Your task to perform on an android device: Show the shopping cart on newegg.com. Add macbook to the cart on newegg.com, then select checkout. Image 0: 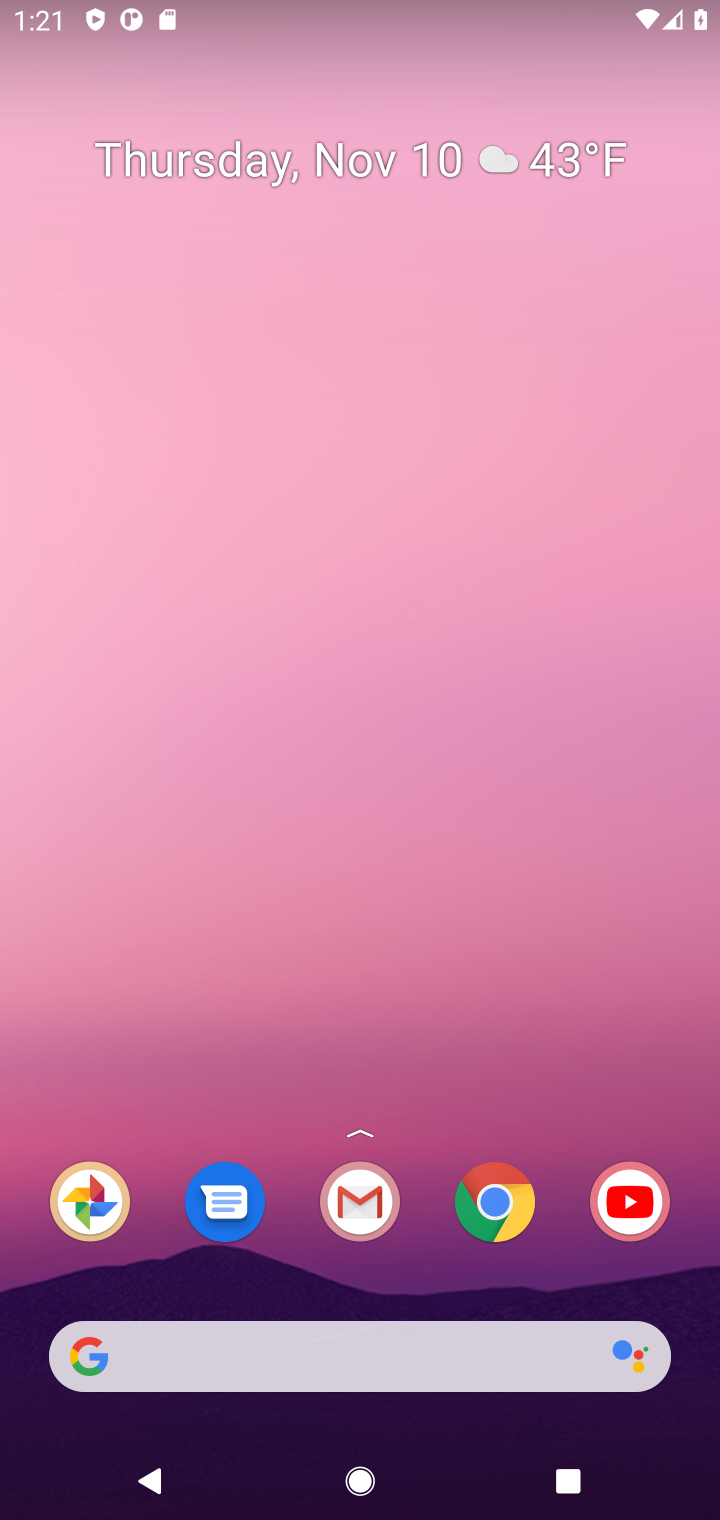
Step 0: click (488, 1188)
Your task to perform on an android device: Show the shopping cart on newegg.com. Add macbook to the cart on newegg.com, then select checkout. Image 1: 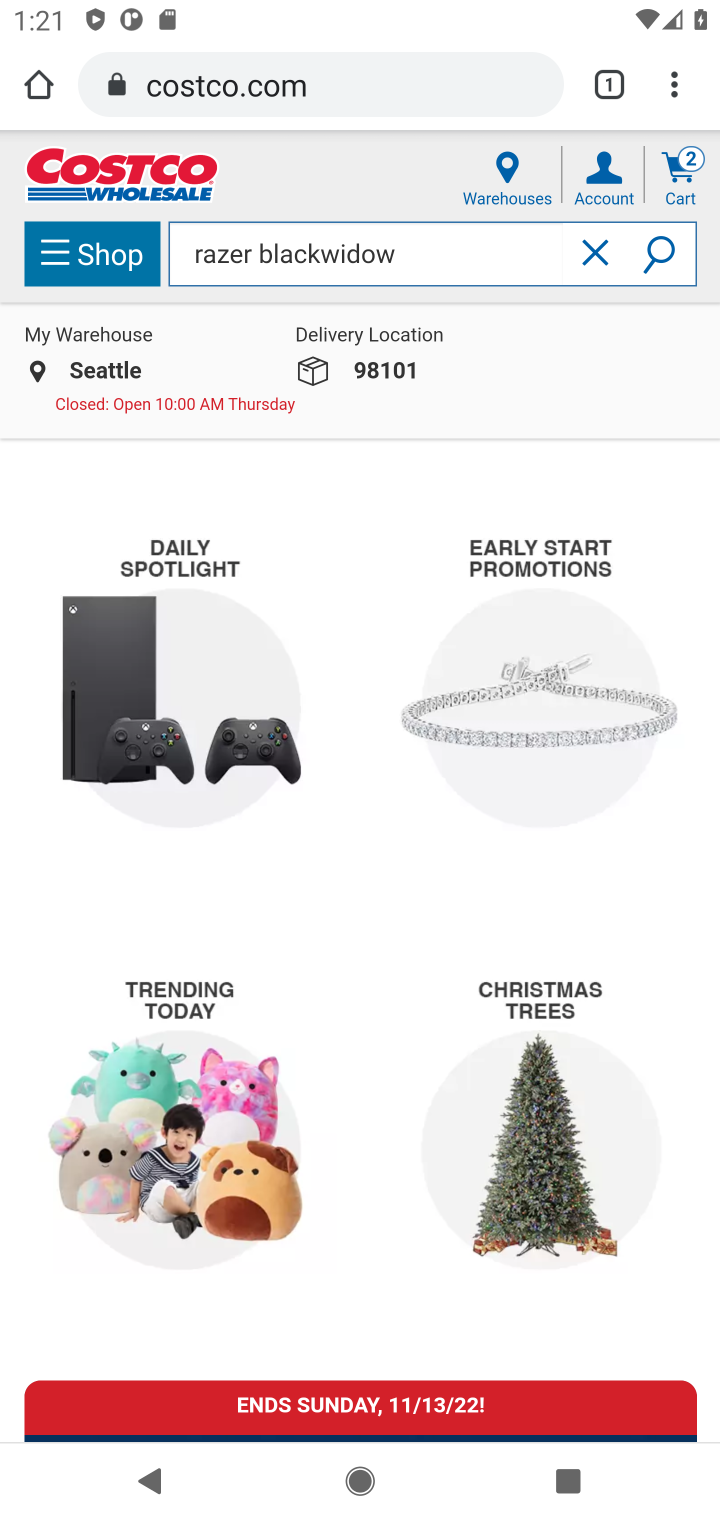
Step 1: click (420, 87)
Your task to perform on an android device: Show the shopping cart on newegg.com. Add macbook to the cart on newegg.com, then select checkout. Image 2: 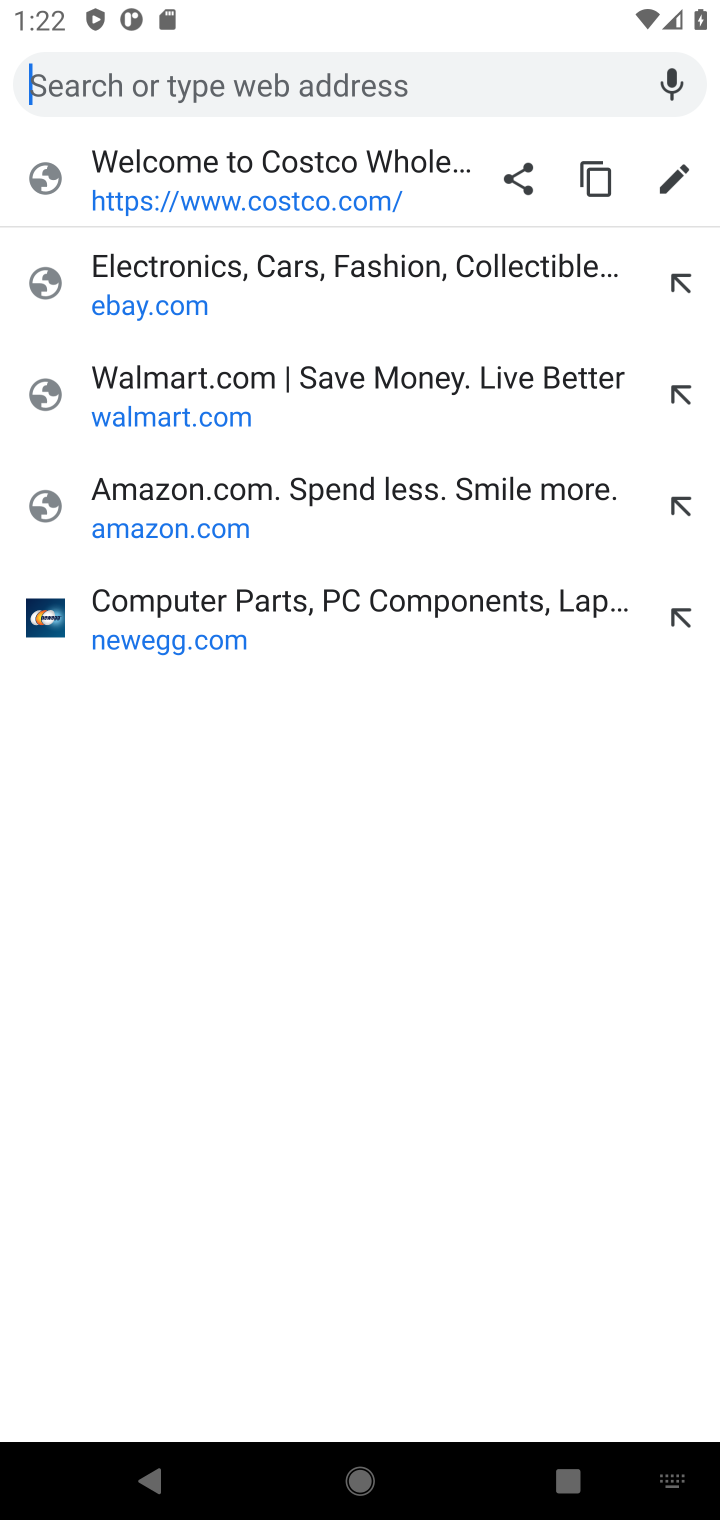
Step 2: type "newegg.com"
Your task to perform on an android device: Show the shopping cart on newegg.com. Add macbook to the cart on newegg.com, then select checkout. Image 3: 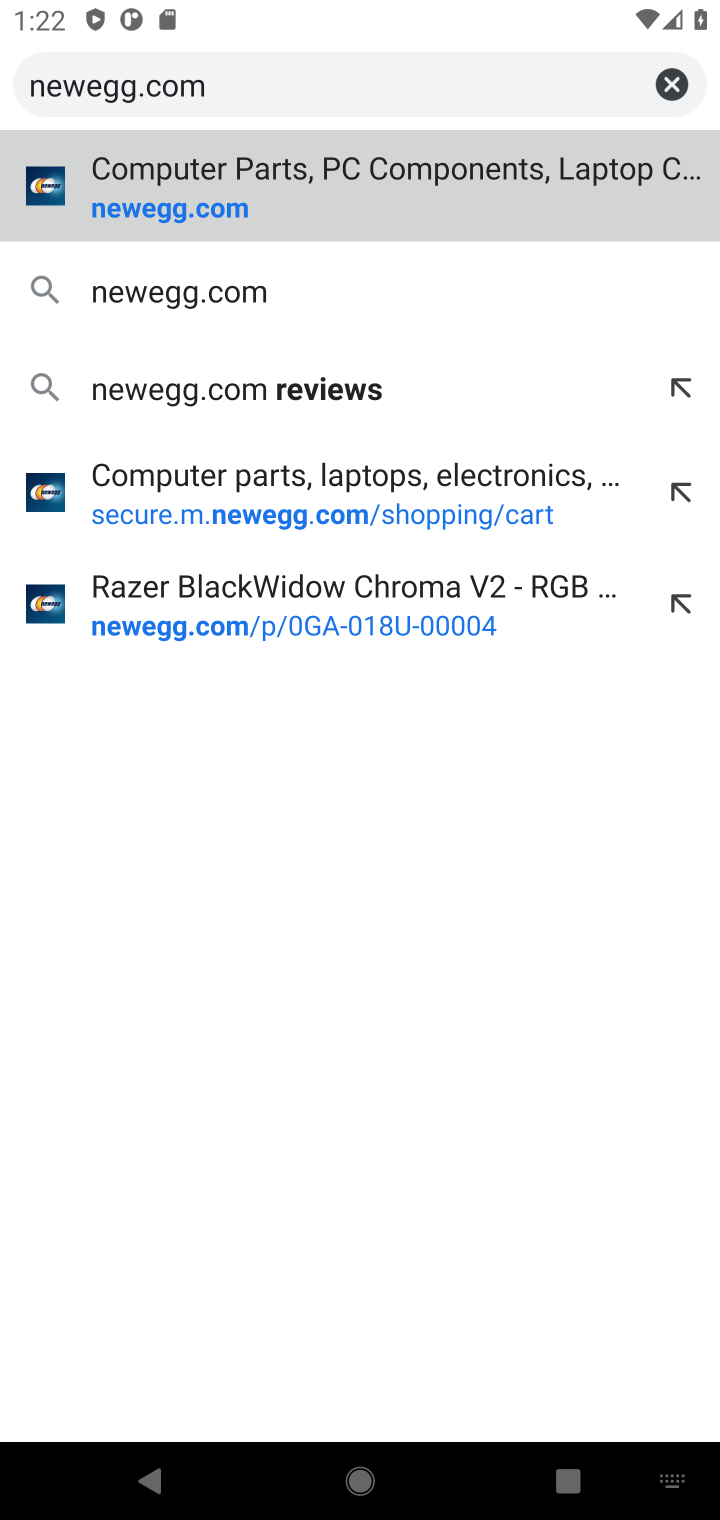
Step 3: click (238, 271)
Your task to perform on an android device: Show the shopping cart on newegg.com. Add macbook to the cart on newegg.com, then select checkout. Image 4: 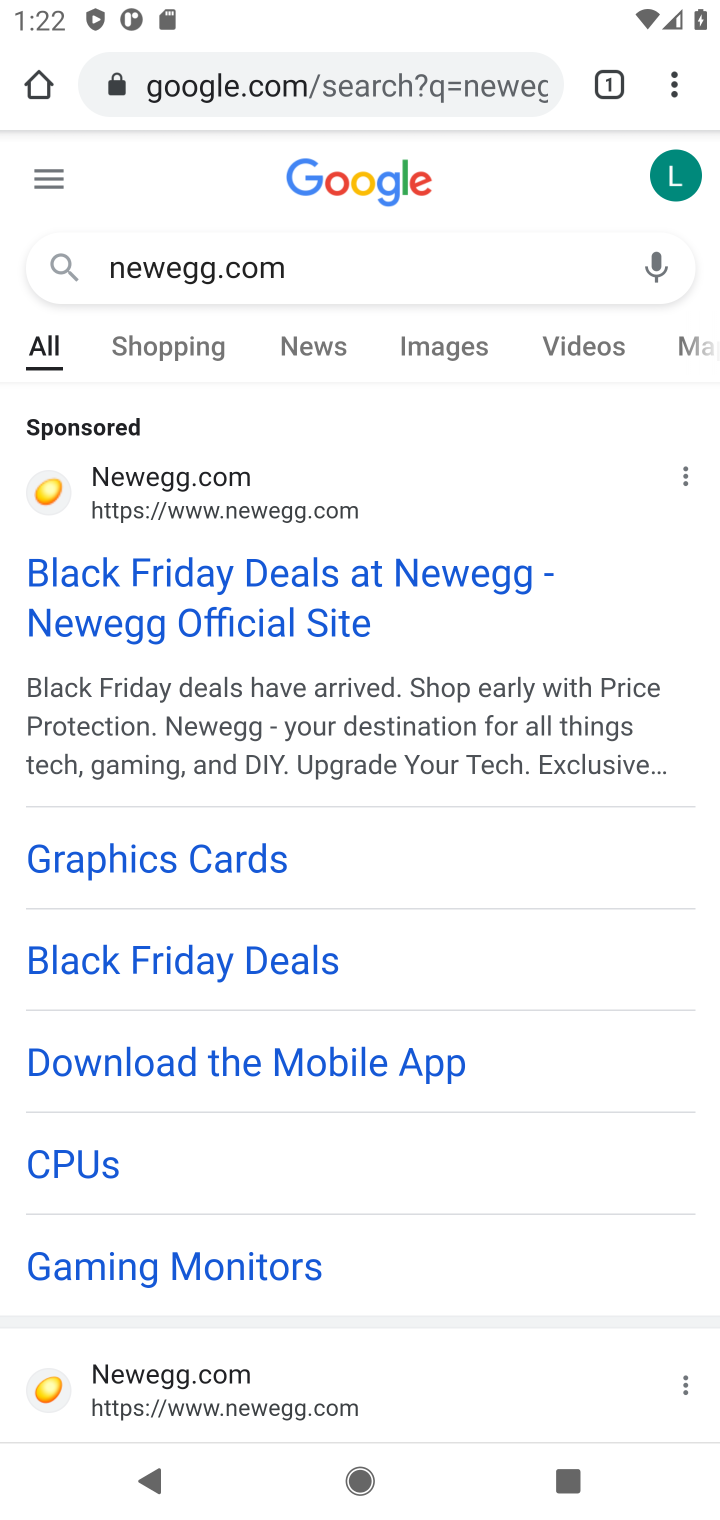
Step 4: click (299, 498)
Your task to perform on an android device: Show the shopping cart on newegg.com. Add macbook to the cart on newegg.com, then select checkout. Image 5: 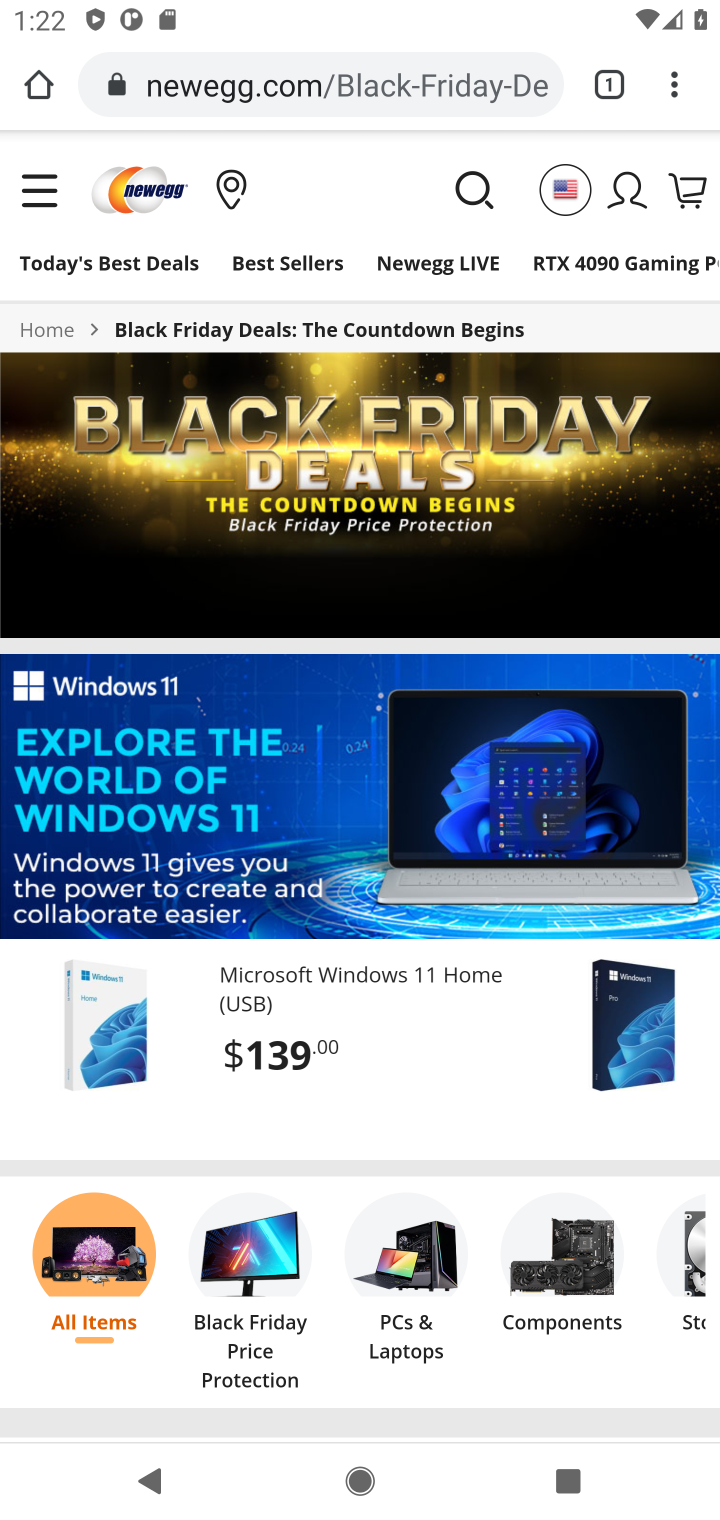
Step 5: click (470, 176)
Your task to perform on an android device: Show the shopping cart on newegg.com. Add macbook to the cart on newegg.com, then select checkout. Image 6: 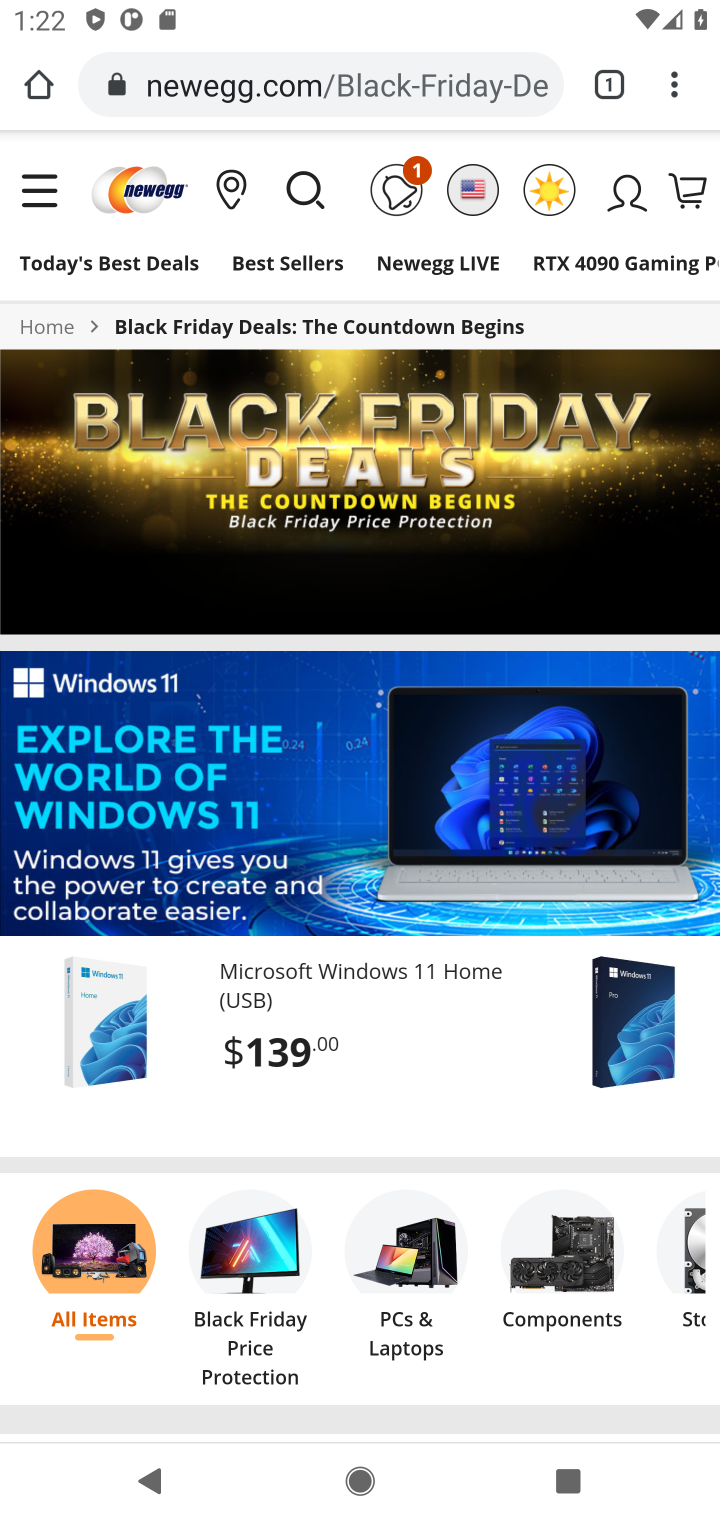
Step 6: click (297, 187)
Your task to perform on an android device: Show the shopping cart on newegg.com. Add macbook to the cart on newegg.com, then select checkout. Image 7: 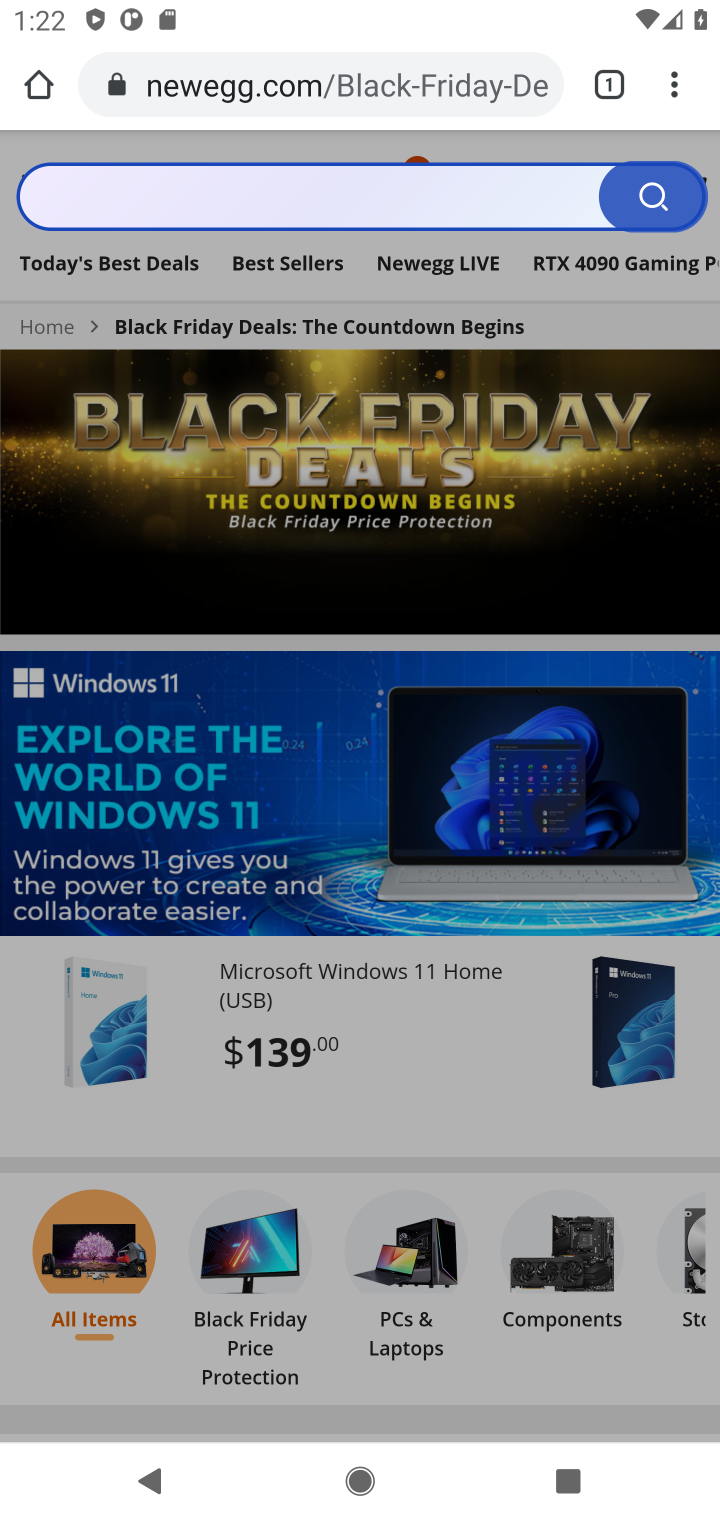
Step 7: click (303, 187)
Your task to perform on an android device: Show the shopping cart on newegg.com. Add macbook to the cart on newegg.com, then select checkout. Image 8: 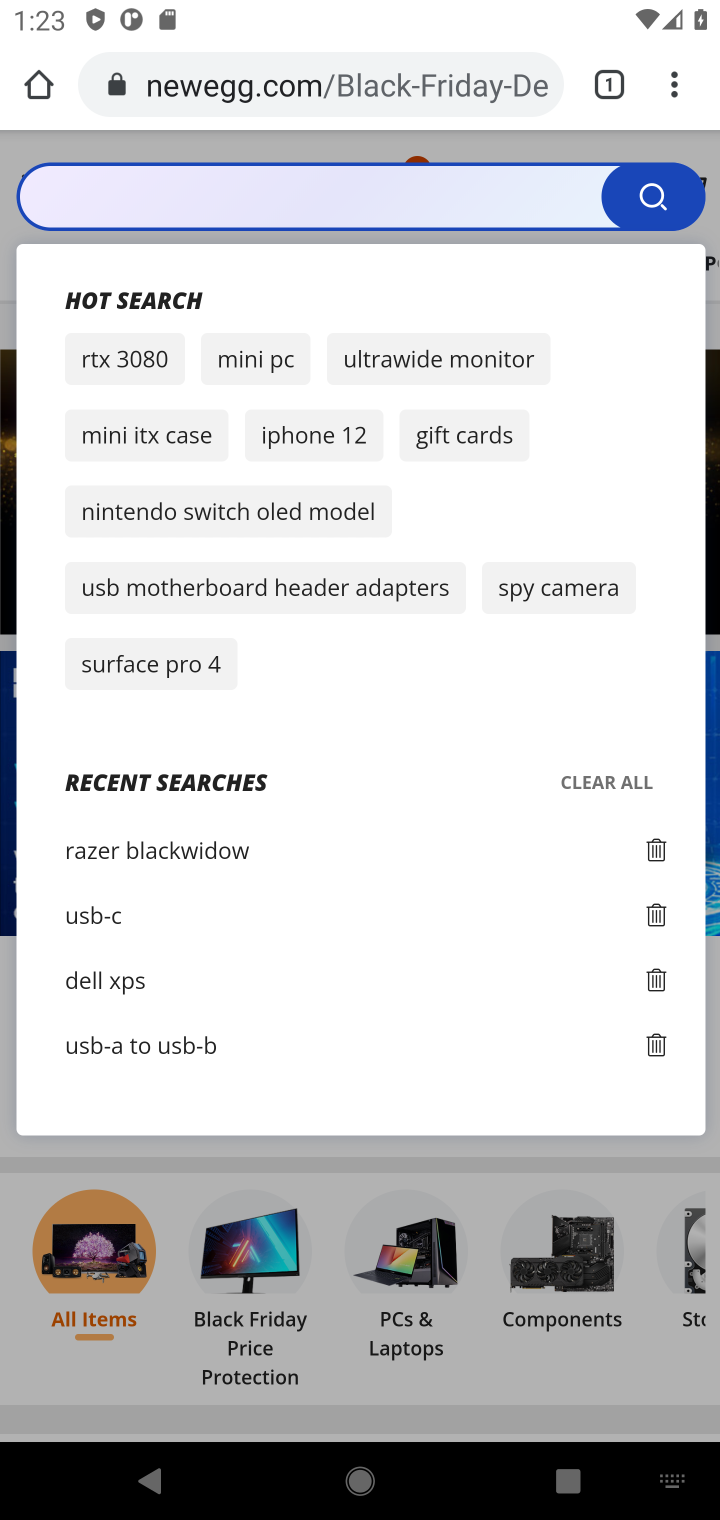
Step 8: type "macbook "
Your task to perform on an android device: Show the shopping cart on newegg.com. Add macbook to the cart on newegg.com, then select checkout. Image 9: 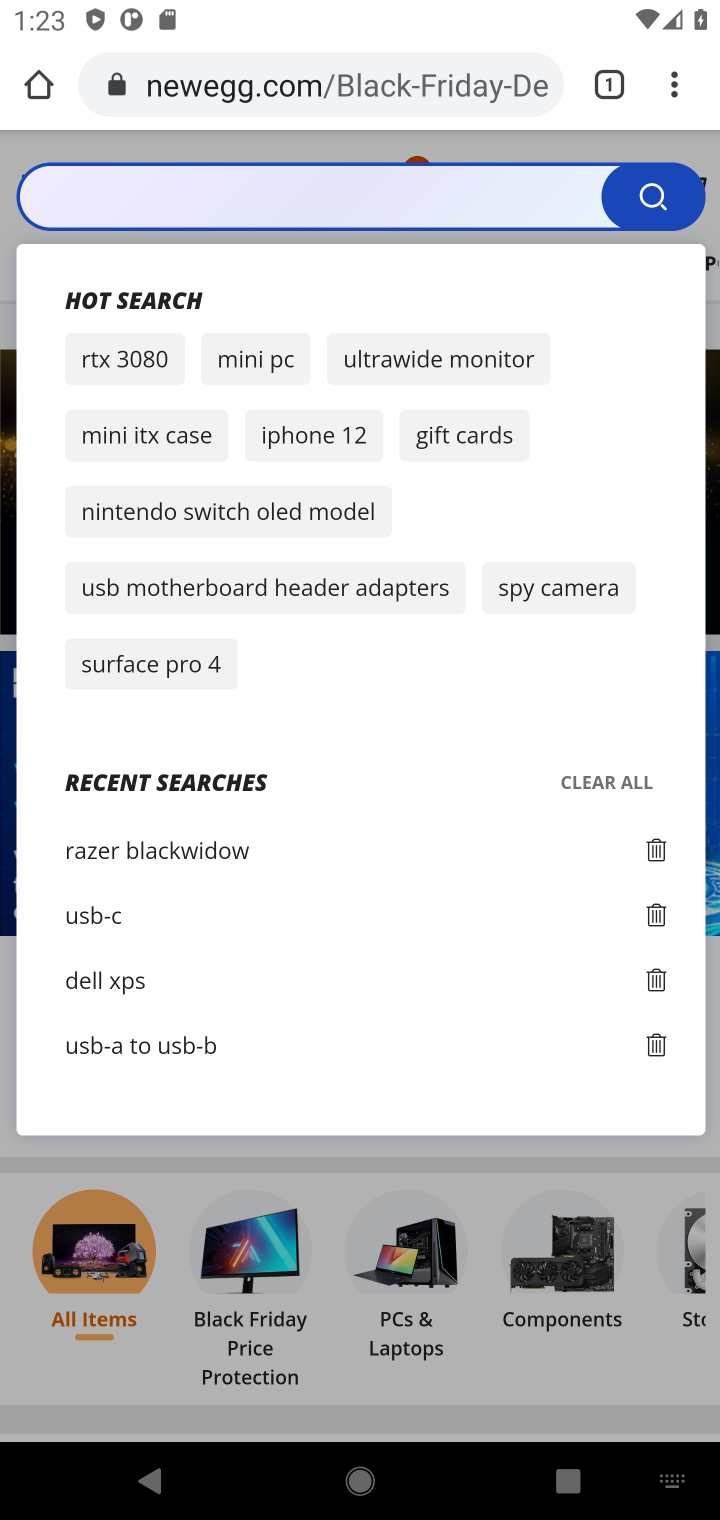
Step 9: press enter
Your task to perform on an android device: Show the shopping cart on newegg.com. Add macbook to the cart on newegg.com, then select checkout. Image 10: 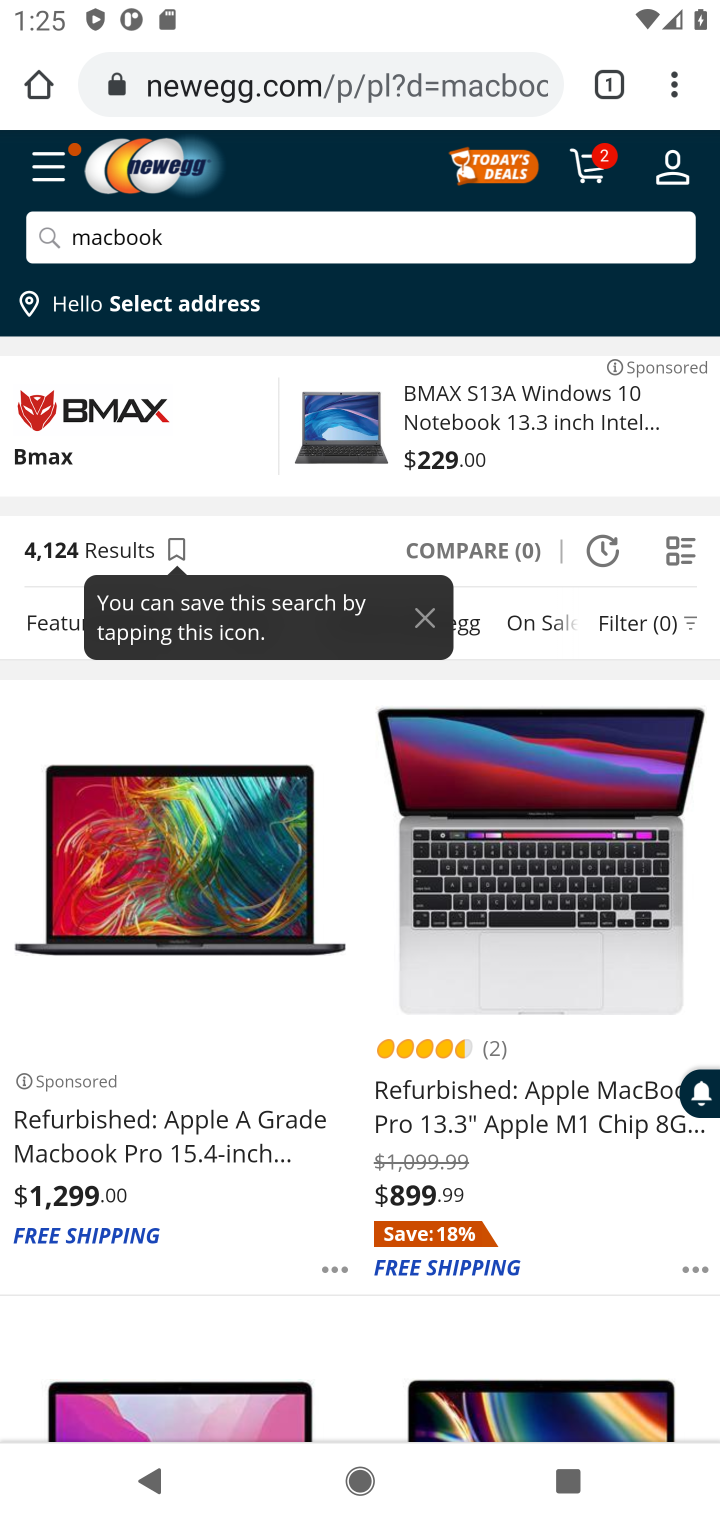
Step 10: click (512, 904)
Your task to perform on an android device: Show the shopping cart on newegg.com. Add macbook to the cart on newegg.com, then select checkout. Image 11: 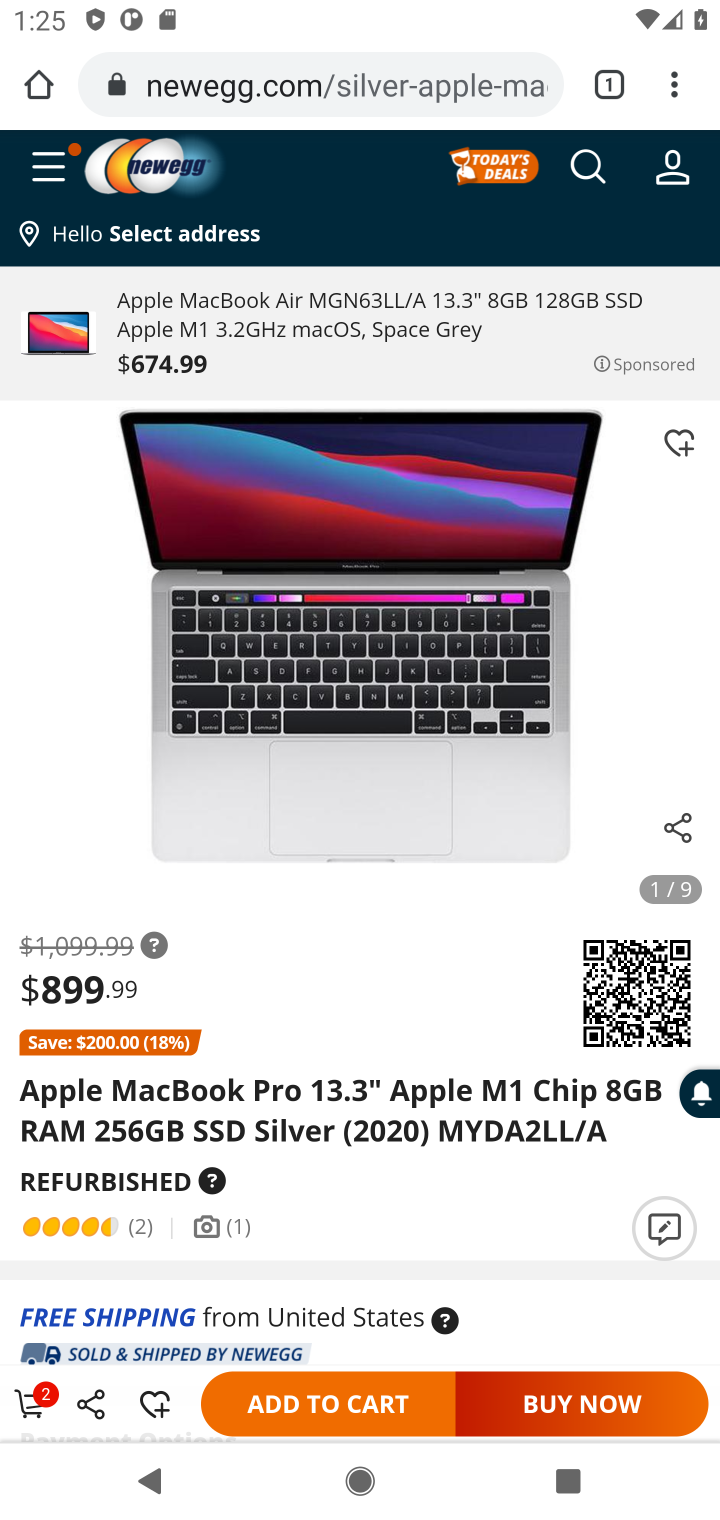
Step 11: click (287, 1410)
Your task to perform on an android device: Show the shopping cart on newegg.com. Add macbook to the cart on newegg.com, then select checkout. Image 12: 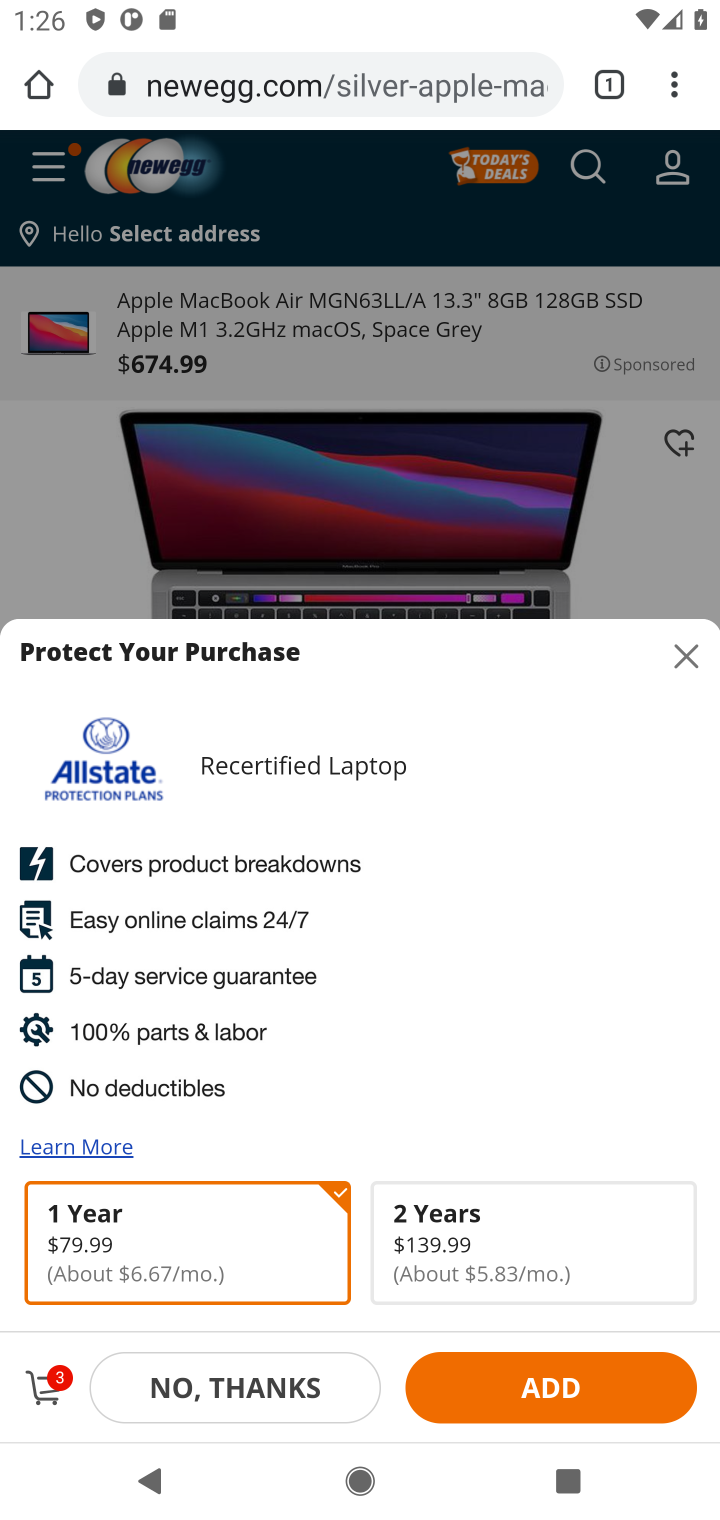
Step 12: click (675, 659)
Your task to perform on an android device: Show the shopping cart on newegg.com. Add macbook to the cart on newegg.com, then select checkout. Image 13: 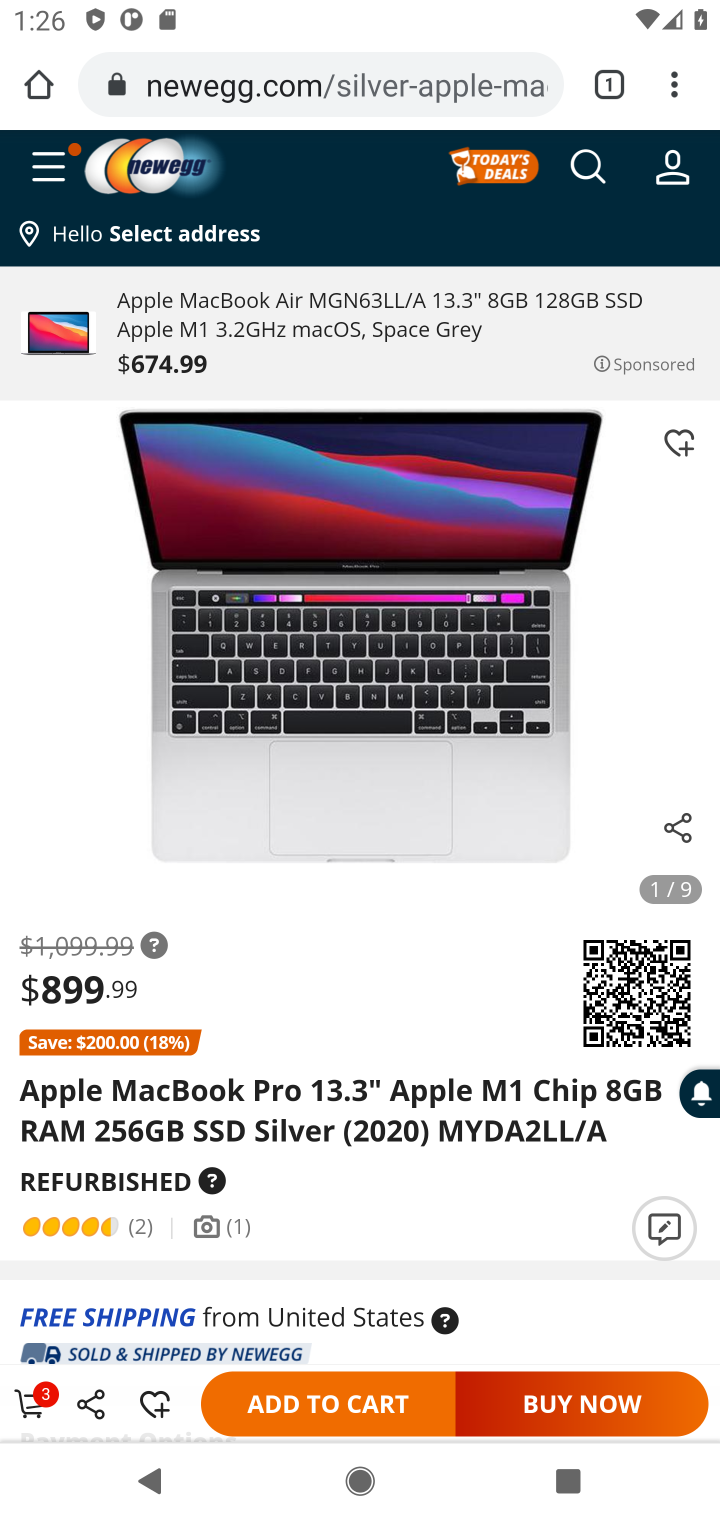
Step 13: click (26, 1398)
Your task to perform on an android device: Show the shopping cart on newegg.com. Add macbook to the cart on newegg.com, then select checkout. Image 14: 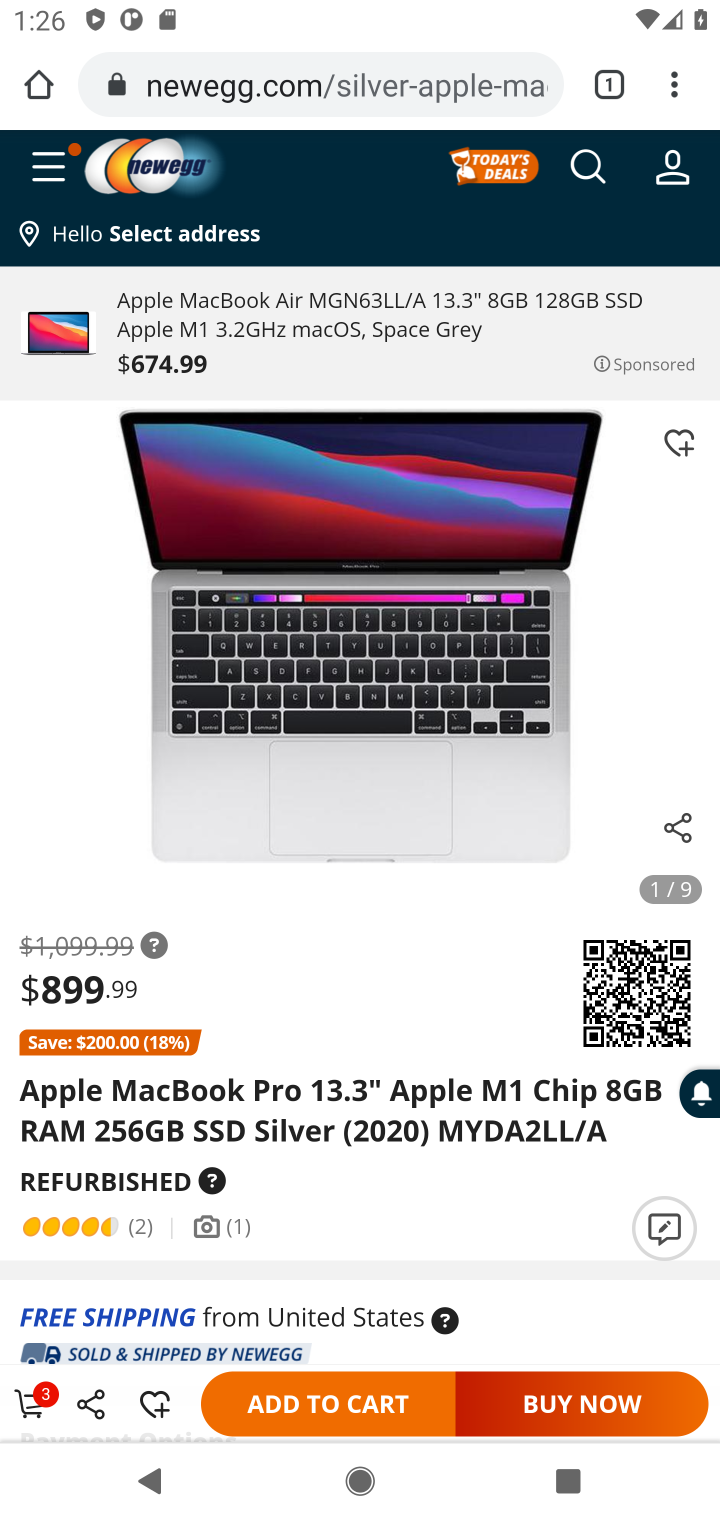
Step 14: click (31, 1407)
Your task to perform on an android device: Show the shopping cart on newegg.com. Add macbook to the cart on newegg.com, then select checkout. Image 15: 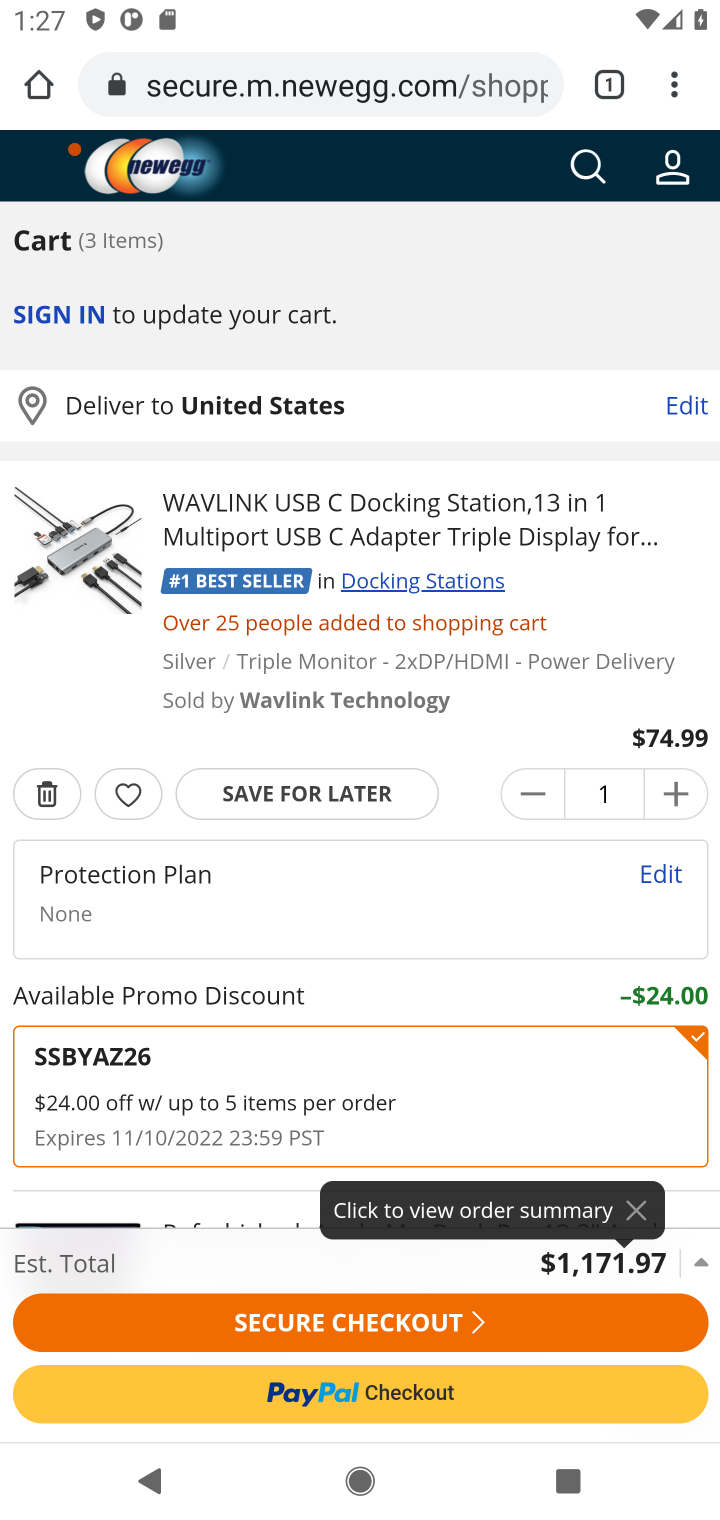
Step 15: click (353, 1320)
Your task to perform on an android device: Show the shopping cart on newegg.com. Add macbook to the cart on newegg.com, then select checkout. Image 16: 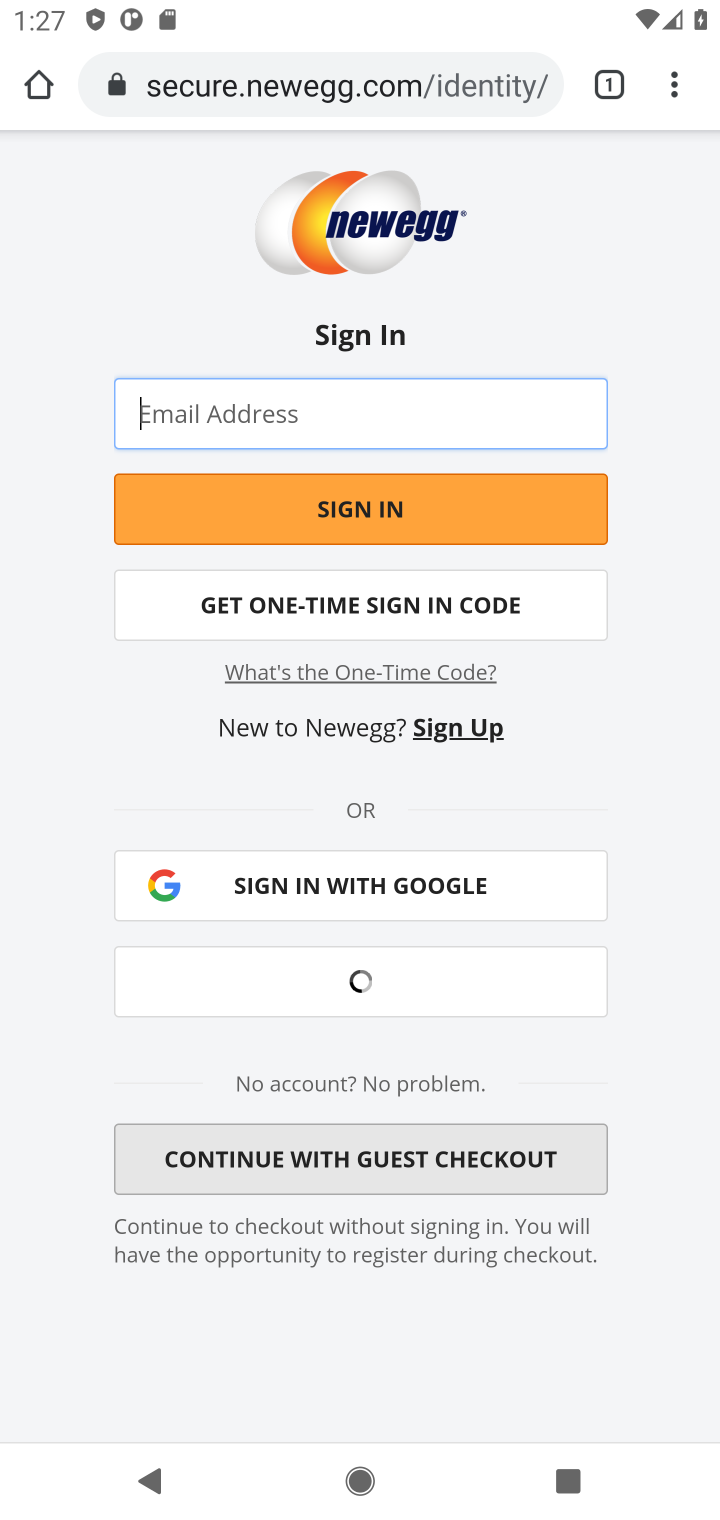
Step 16: task complete